Your task to perform on an android device: Open display settings Image 0: 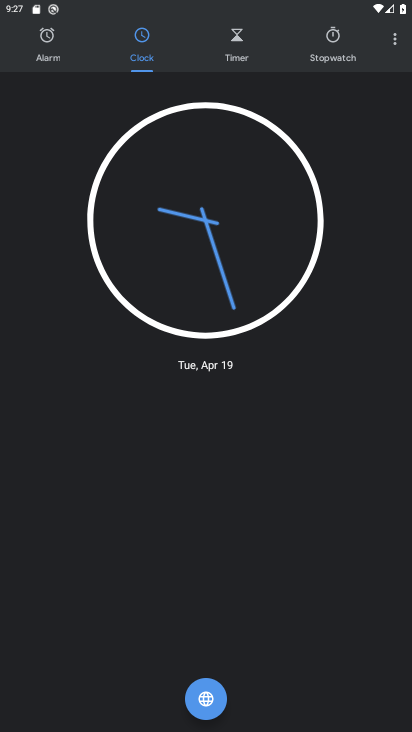
Step 0: press home button
Your task to perform on an android device: Open display settings Image 1: 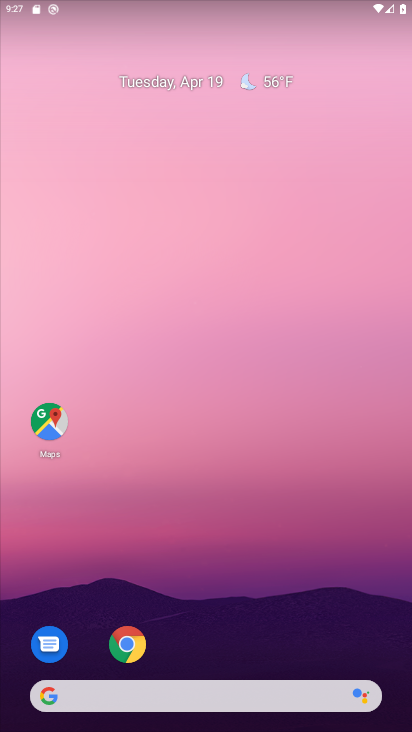
Step 1: drag from (248, 646) to (228, 190)
Your task to perform on an android device: Open display settings Image 2: 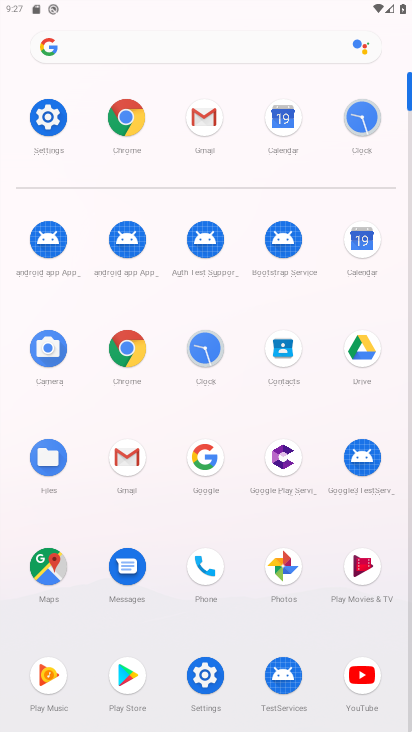
Step 2: click (37, 118)
Your task to perform on an android device: Open display settings Image 3: 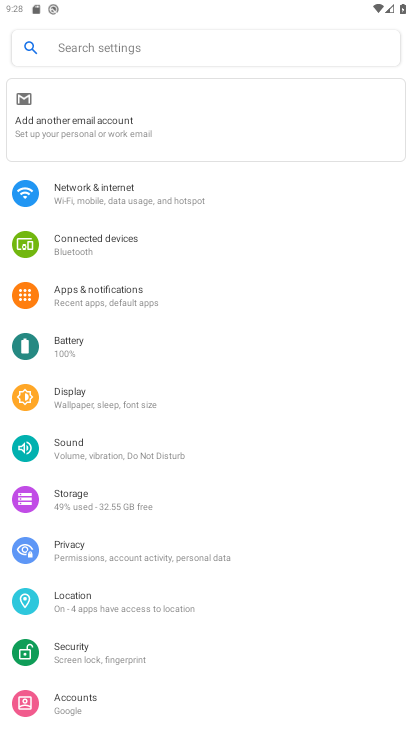
Step 3: click (122, 396)
Your task to perform on an android device: Open display settings Image 4: 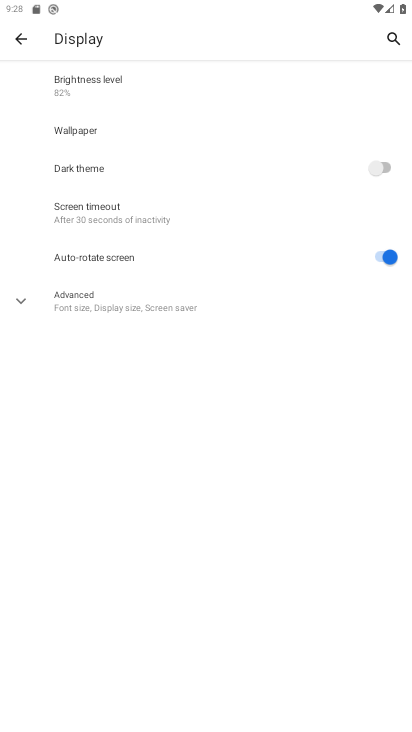
Step 4: task complete